Your task to perform on an android device: Go to Android settings Image 0: 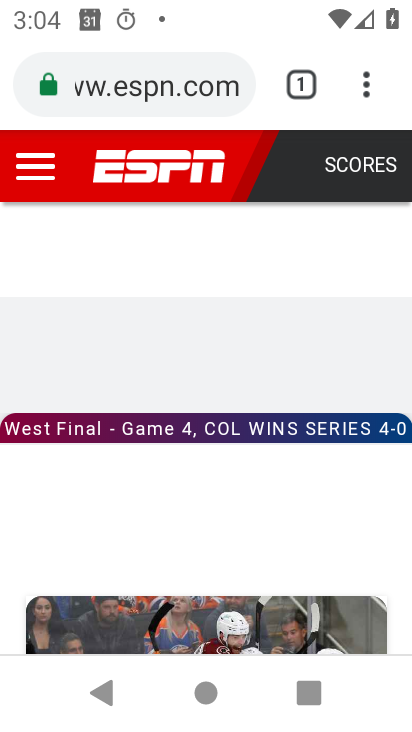
Step 0: press home button
Your task to perform on an android device: Go to Android settings Image 1: 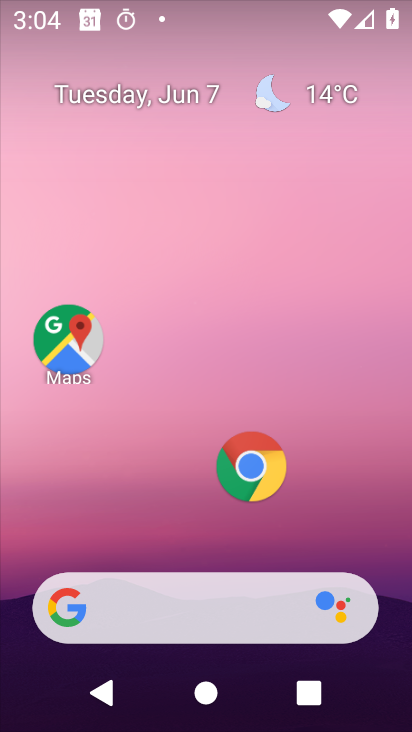
Step 1: drag from (161, 721) to (178, 104)
Your task to perform on an android device: Go to Android settings Image 2: 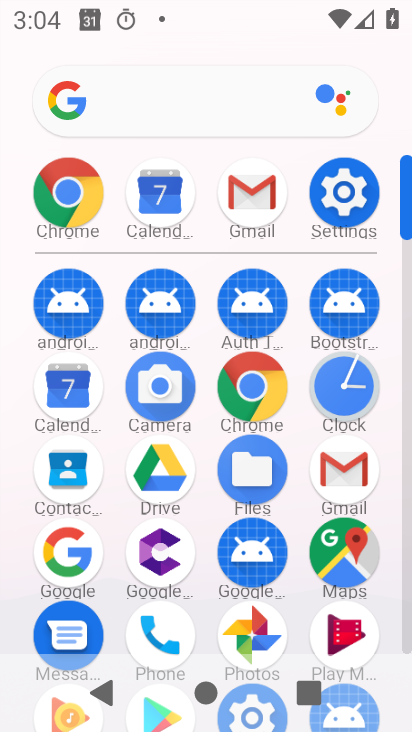
Step 2: click (344, 212)
Your task to perform on an android device: Go to Android settings Image 3: 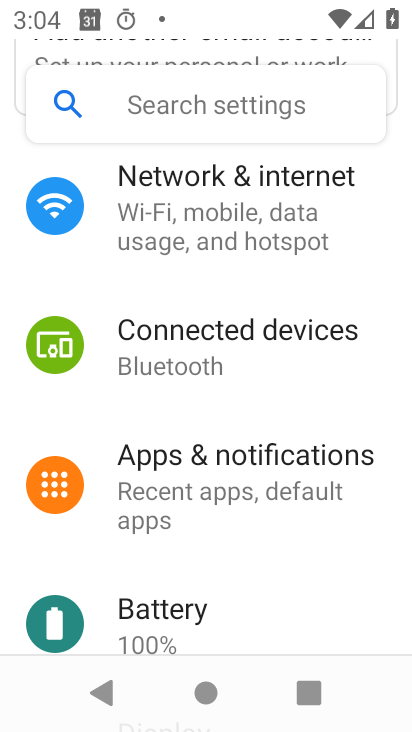
Step 3: task complete